Your task to perform on an android device: change your default location settings in chrome Image 0: 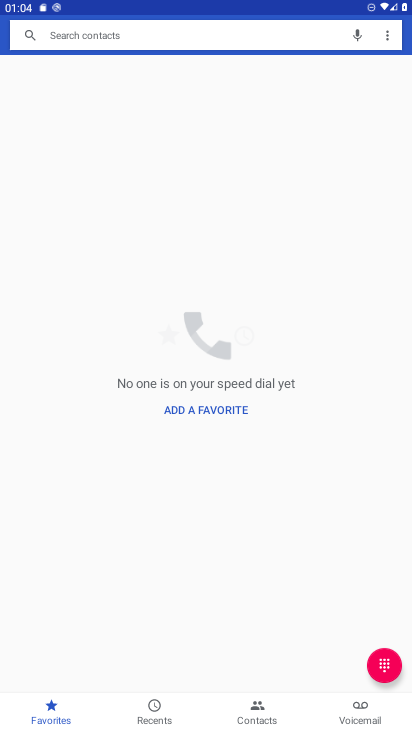
Step 0: press home button
Your task to perform on an android device: change your default location settings in chrome Image 1: 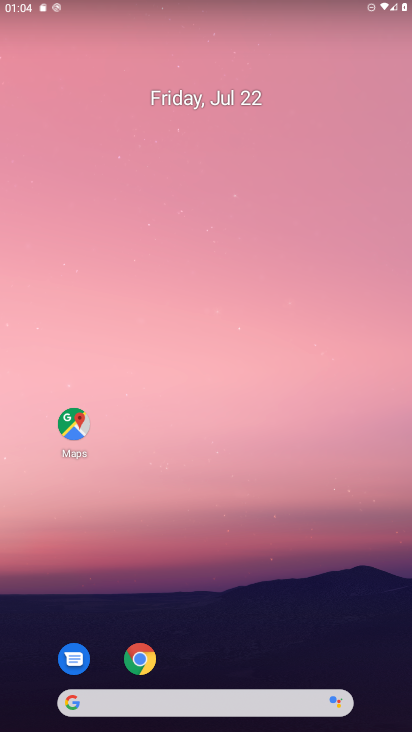
Step 1: click (141, 661)
Your task to perform on an android device: change your default location settings in chrome Image 2: 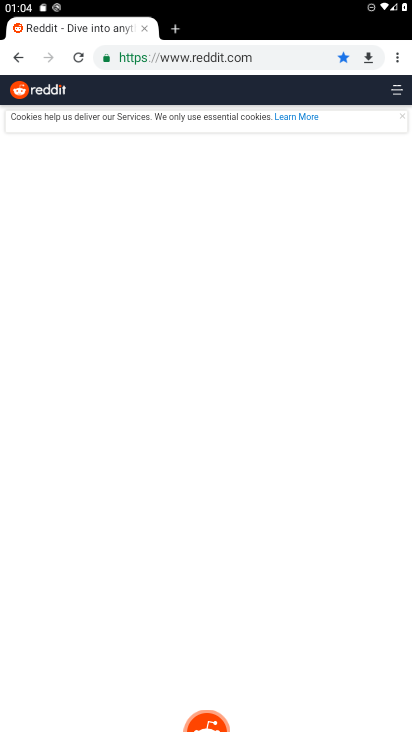
Step 2: click (397, 58)
Your task to perform on an android device: change your default location settings in chrome Image 3: 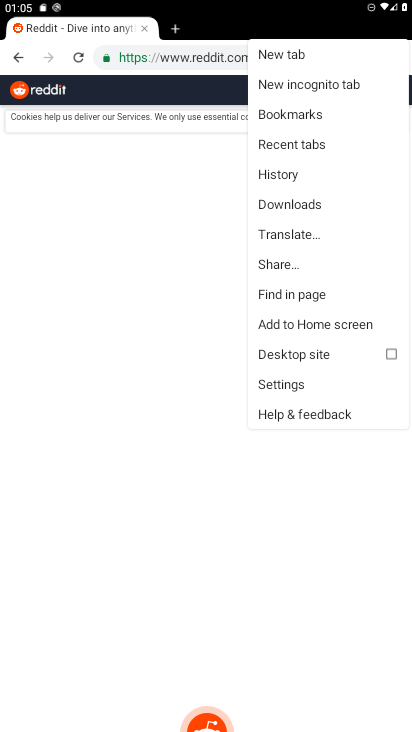
Step 3: click (287, 385)
Your task to perform on an android device: change your default location settings in chrome Image 4: 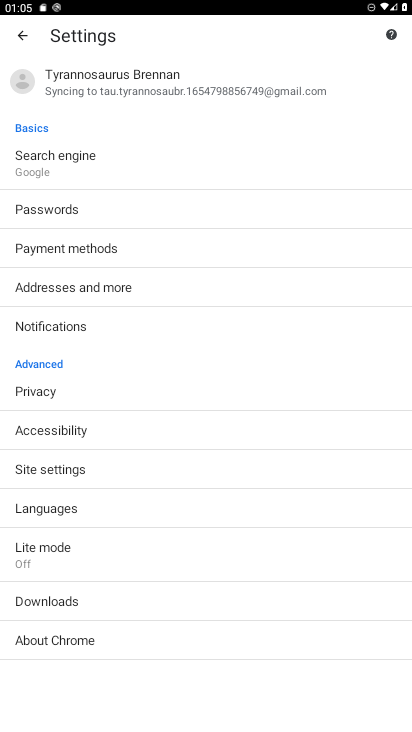
Step 4: click (54, 477)
Your task to perform on an android device: change your default location settings in chrome Image 5: 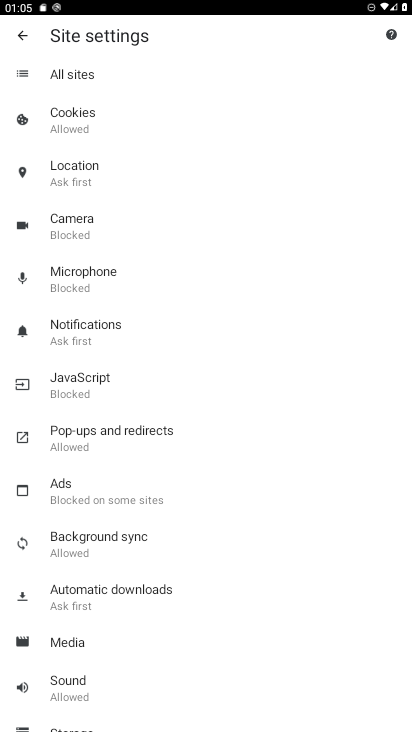
Step 5: click (89, 176)
Your task to perform on an android device: change your default location settings in chrome Image 6: 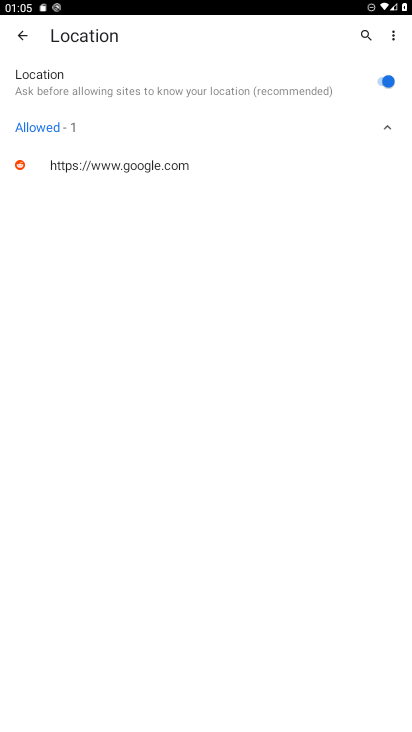
Step 6: click (391, 80)
Your task to perform on an android device: change your default location settings in chrome Image 7: 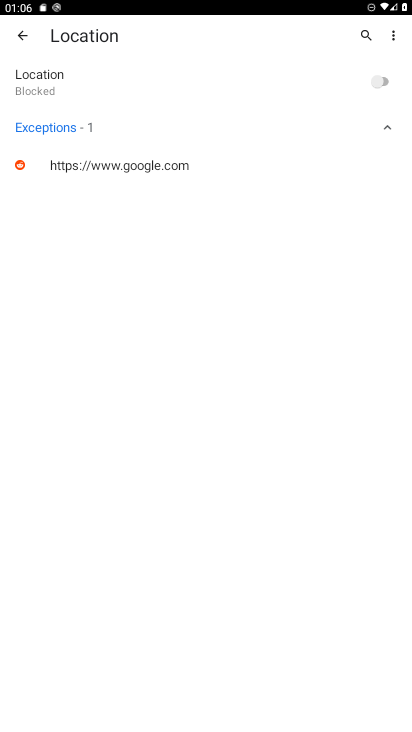
Step 7: task complete